Your task to perform on an android device: Open internet settings Image 0: 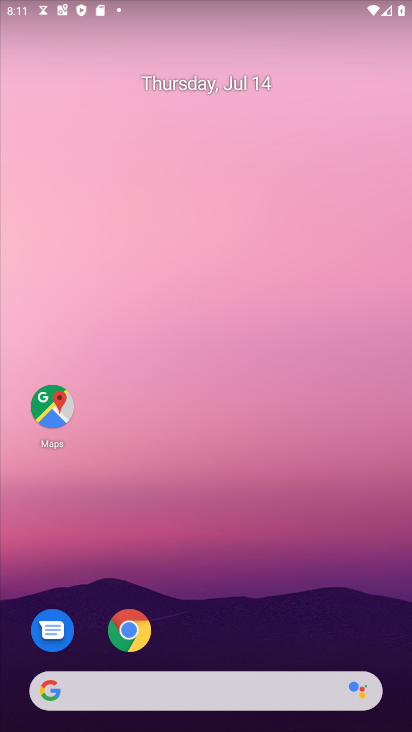
Step 0: drag from (266, 609) to (321, 49)
Your task to perform on an android device: Open internet settings Image 1: 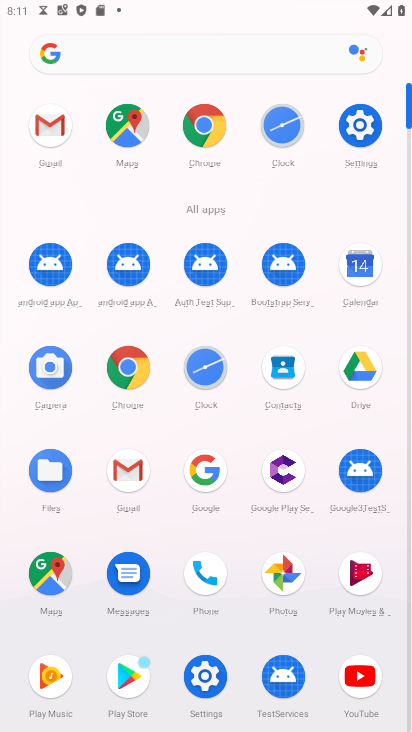
Step 1: click (363, 113)
Your task to perform on an android device: Open internet settings Image 2: 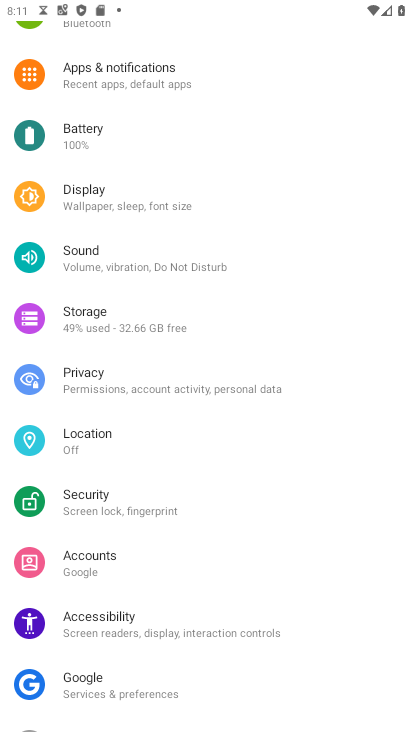
Step 2: drag from (226, 190) to (220, 321)
Your task to perform on an android device: Open internet settings Image 3: 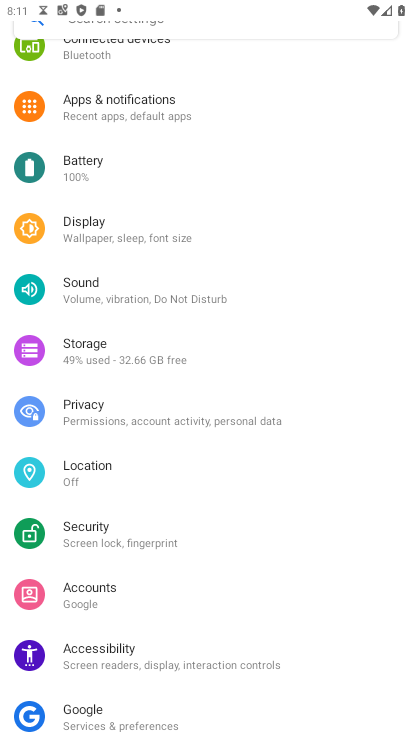
Step 3: drag from (196, 146) to (200, 390)
Your task to perform on an android device: Open internet settings Image 4: 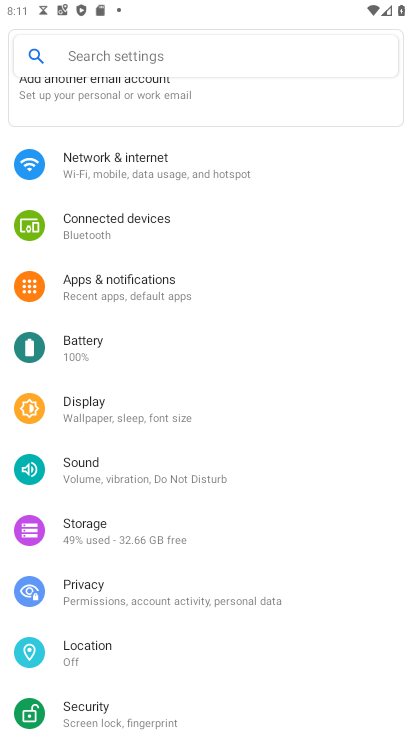
Step 4: click (166, 158)
Your task to perform on an android device: Open internet settings Image 5: 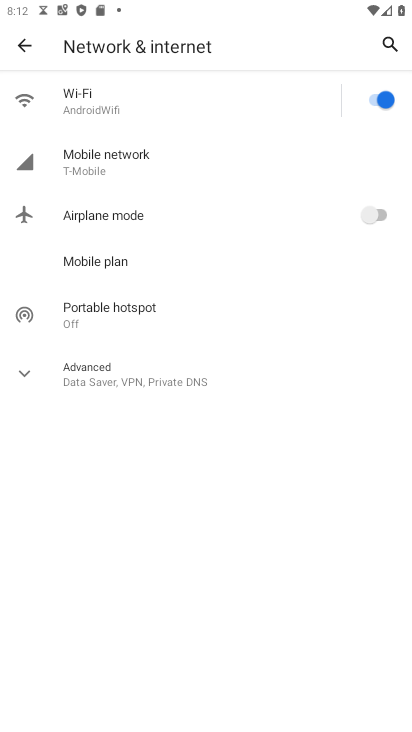
Step 5: click (98, 180)
Your task to perform on an android device: Open internet settings Image 6: 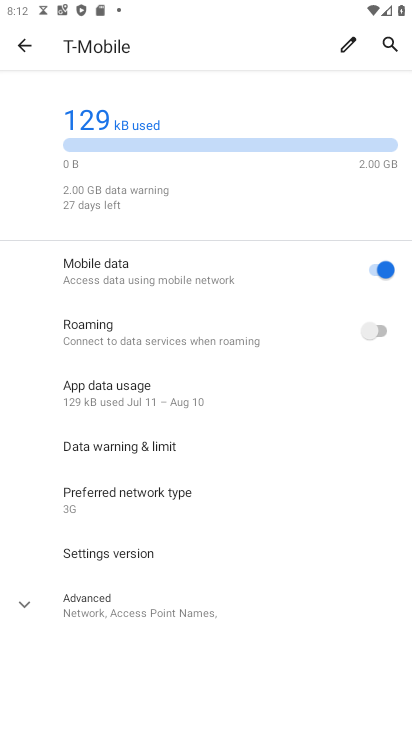
Step 6: task complete